Your task to perform on an android device: Go to Android settings Image 0: 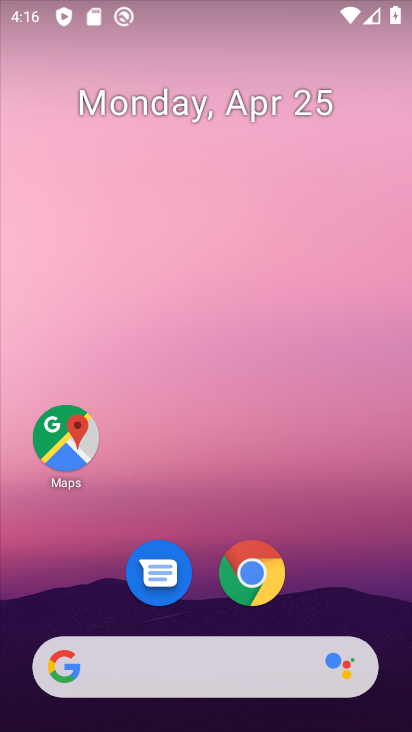
Step 0: click (283, 0)
Your task to perform on an android device: Go to Android settings Image 1: 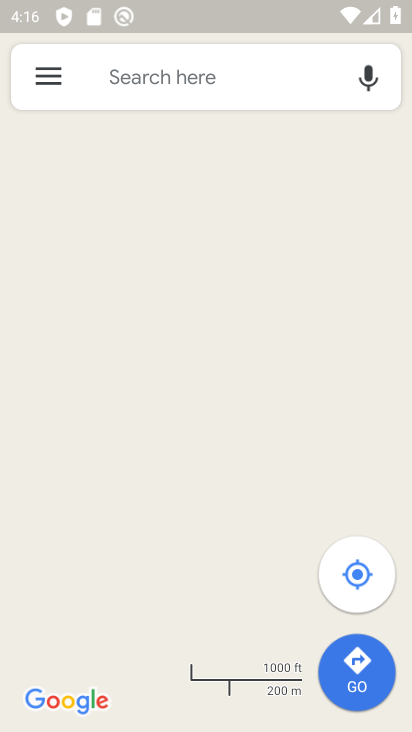
Step 1: press home button
Your task to perform on an android device: Go to Android settings Image 2: 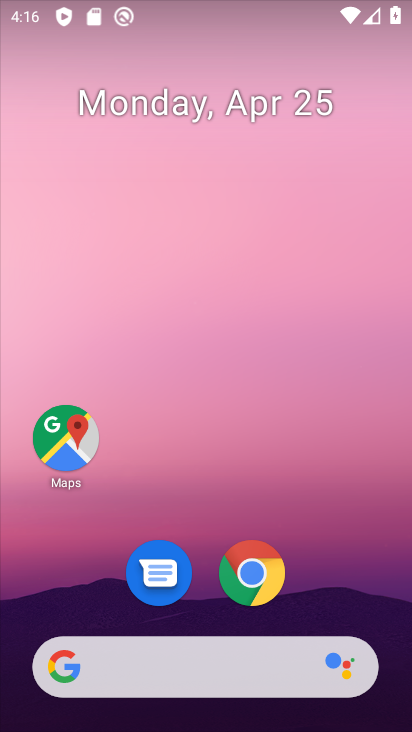
Step 2: drag from (362, 449) to (335, 27)
Your task to perform on an android device: Go to Android settings Image 3: 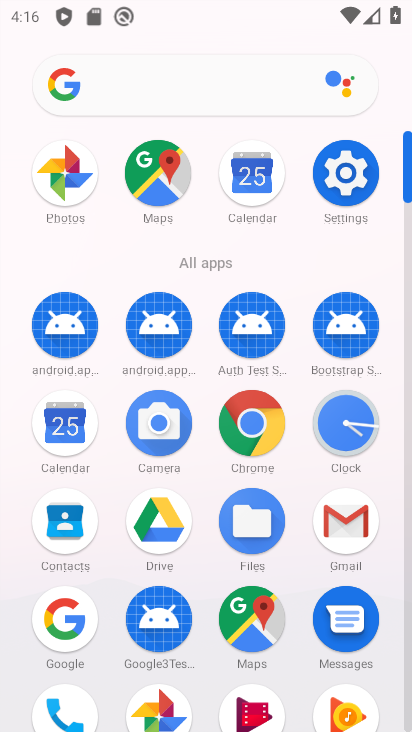
Step 3: click (355, 173)
Your task to perform on an android device: Go to Android settings Image 4: 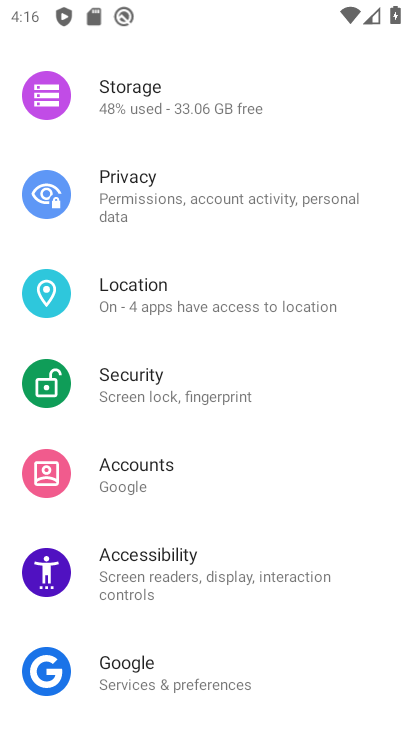
Step 4: task complete